Your task to perform on an android device: toggle wifi Image 0: 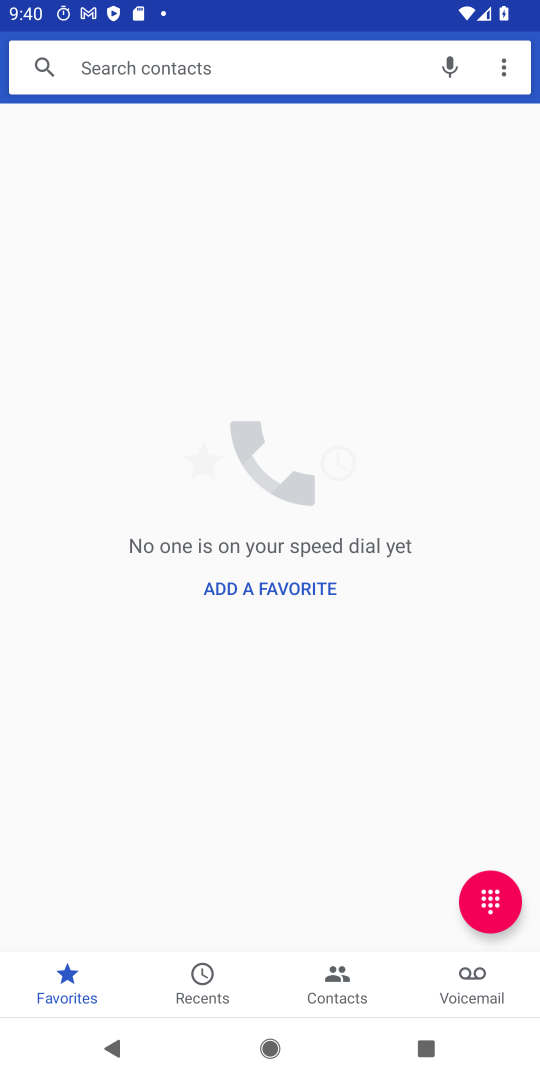
Step 0: press home button
Your task to perform on an android device: toggle wifi Image 1: 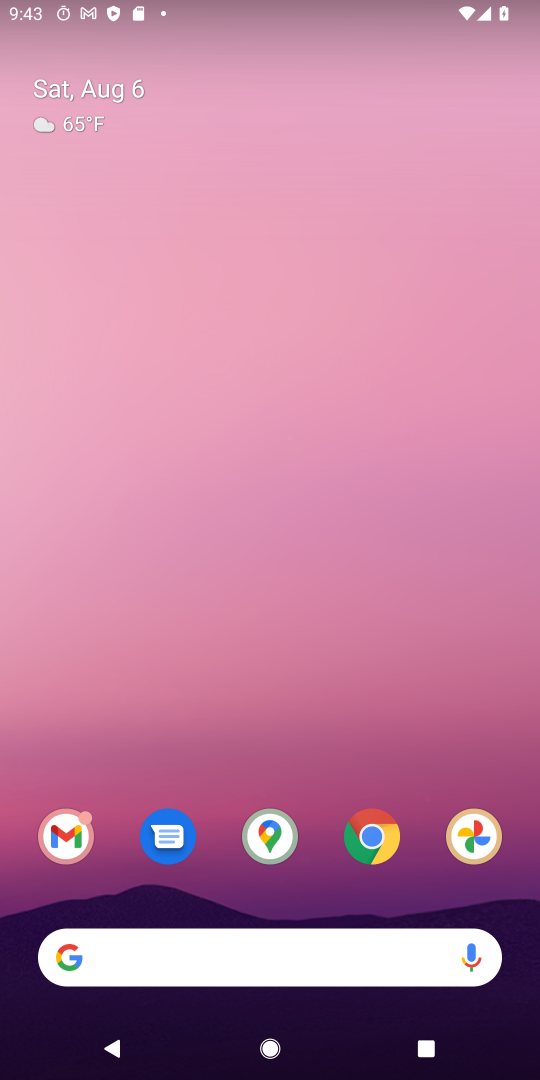
Step 1: drag from (294, 13) to (380, 1031)
Your task to perform on an android device: toggle wifi Image 2: 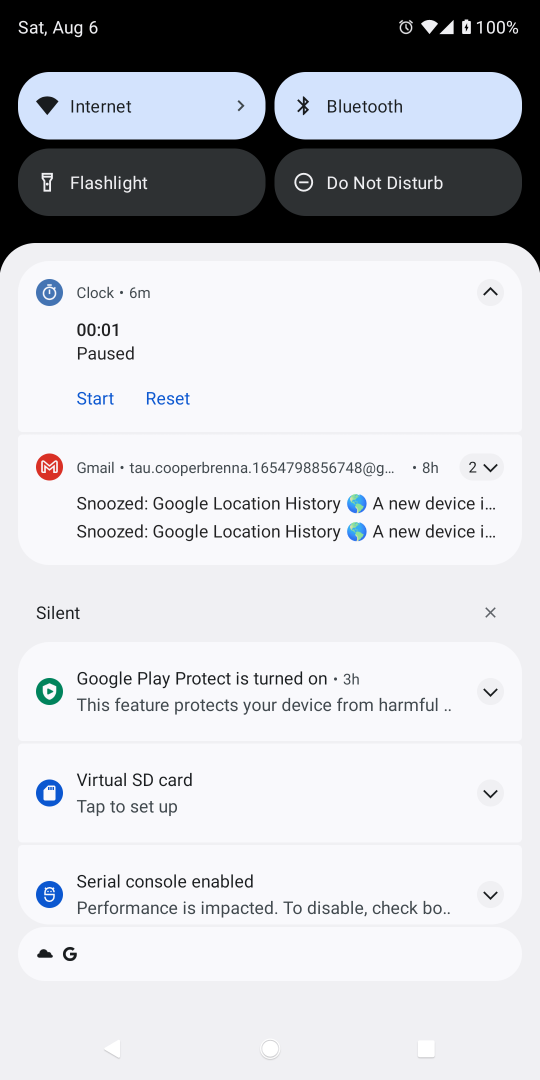
Step 2: drag from (280, 218) to (281, 997)
Your task to perform on an android device: toggle wifi Image 3: 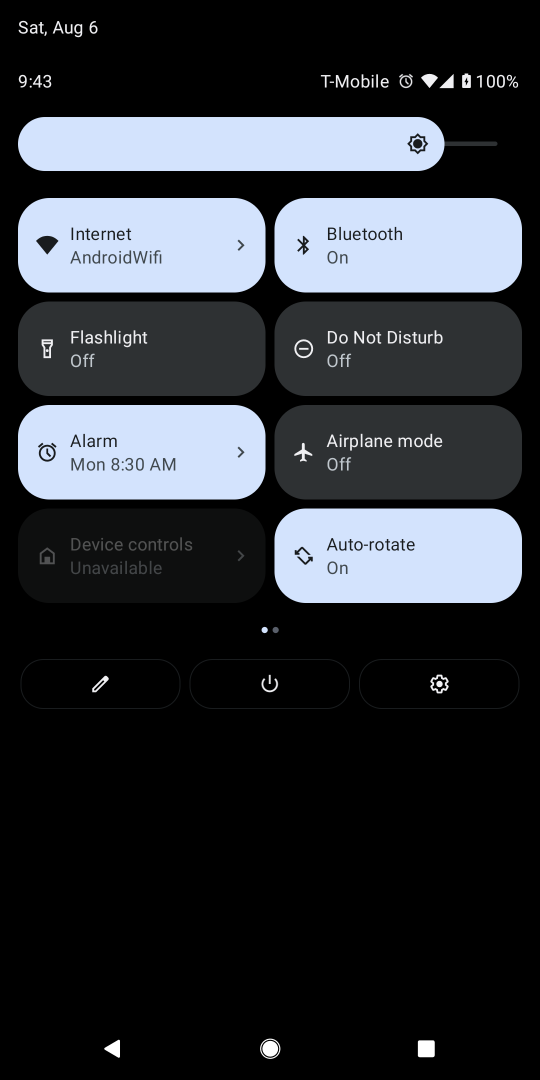
Step 3: click (135, 246)
Your task to perform on an android device: toggle wifi Image 4: 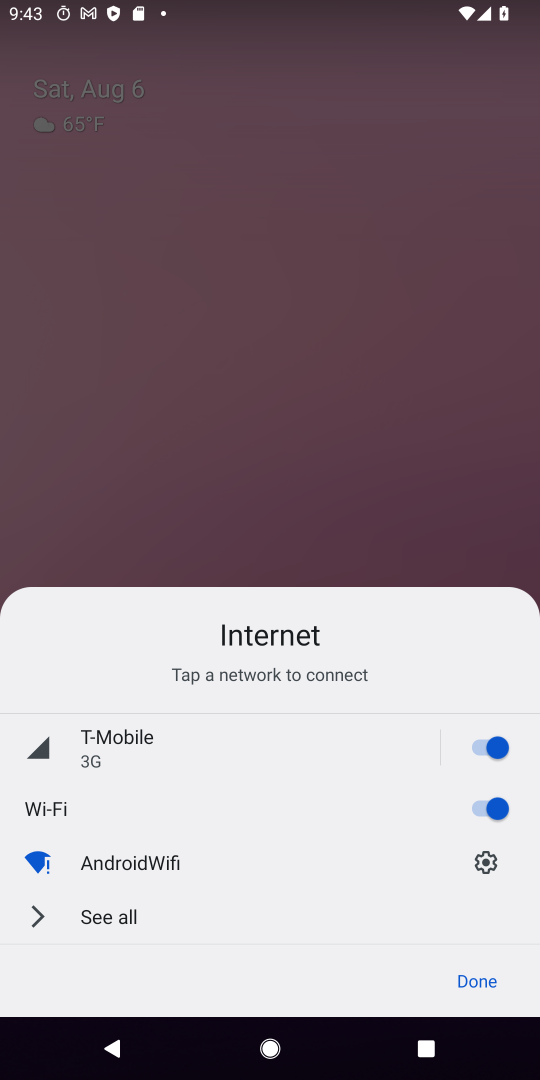
Step 4: click (481, 811)
Your task to perform on an android device: toggle wifi Image 5: 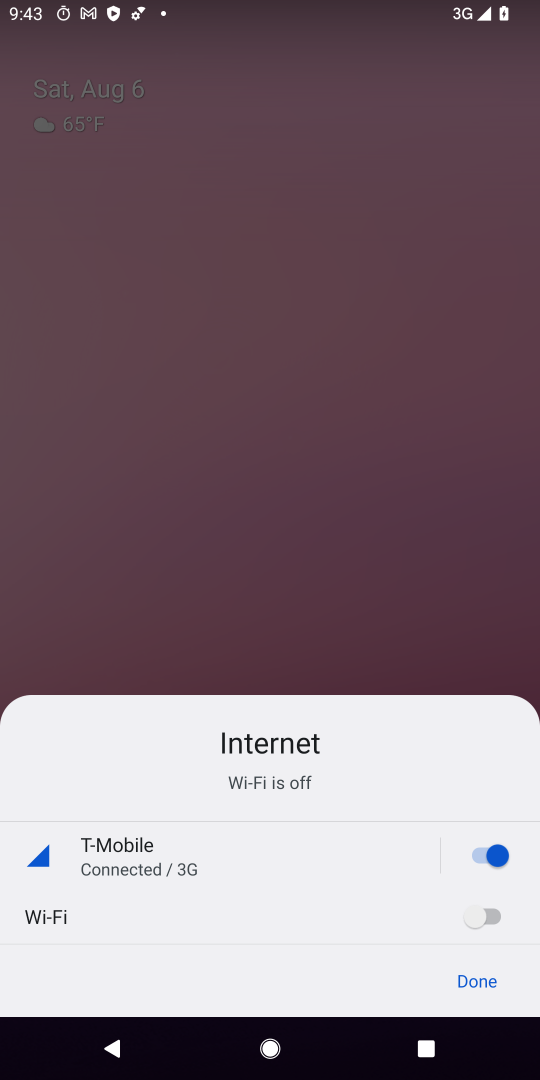
Step 5: task complete